Your task to perform on an android device: Open Amazon Image 0: 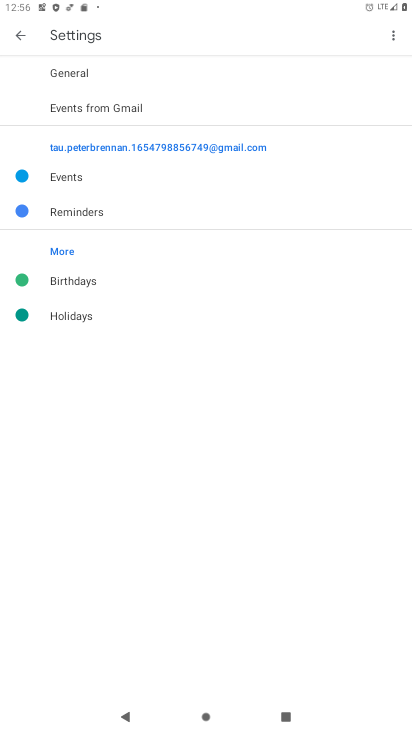
Step 0: press home button
Your task to perform on an android device: Open Amazon Image 1: 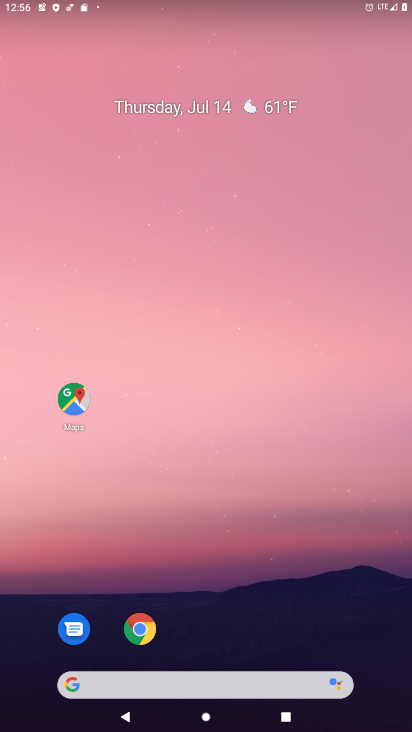
Step 1: click (142, 634)
Your task to perform on an android device: Open Amazon Image 2: 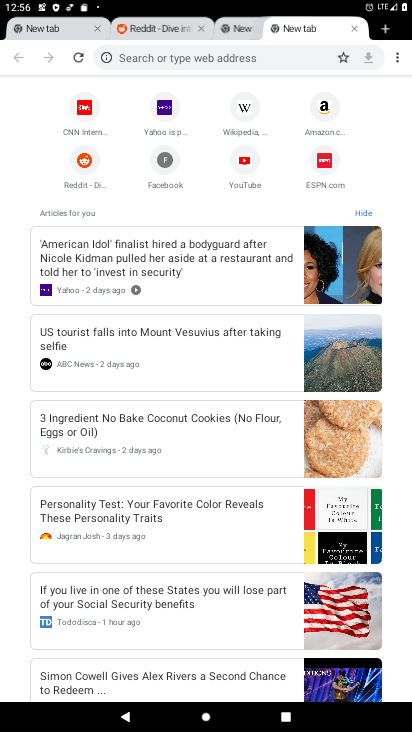
Step 2: click (324, 108)
Your task to perform on an android device: Open Amazon Image 3: 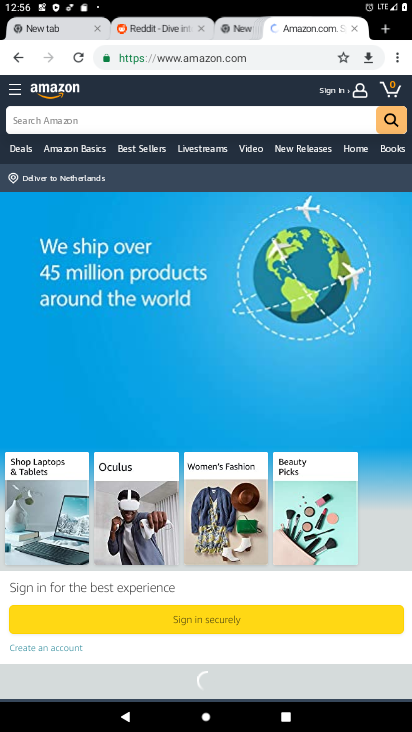
Step 3: task complete